Your task to perform on an android device: turn on sleep mode Image 0: 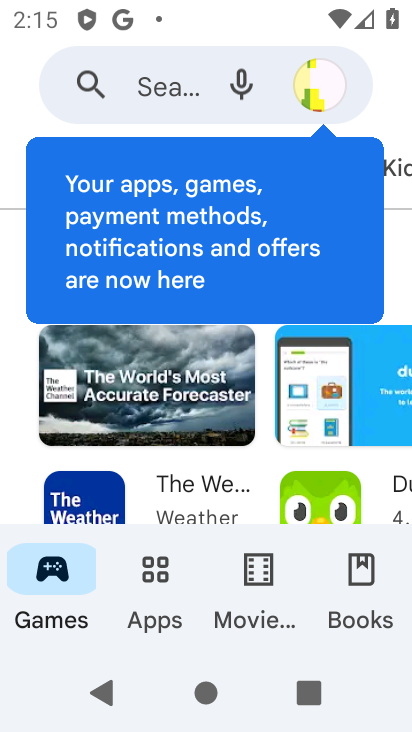
Step 0: press home button
Your task to perform on an android device: turn on sleep mode Image 1: 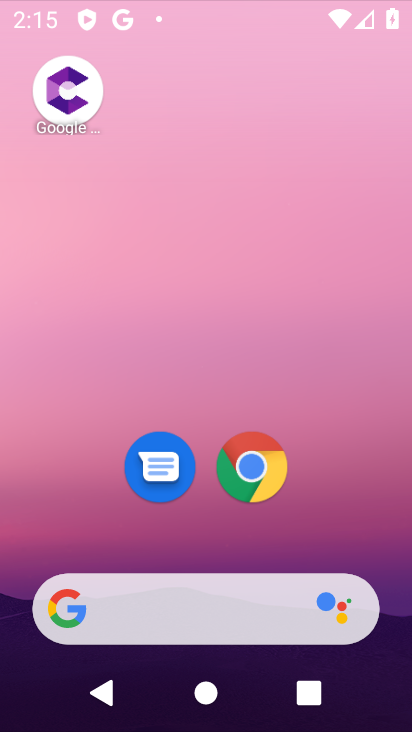
Step 1: drag from (201, 527) to (317, 45)
Your task to perform on an android device: turn on sleep mode Image 2: 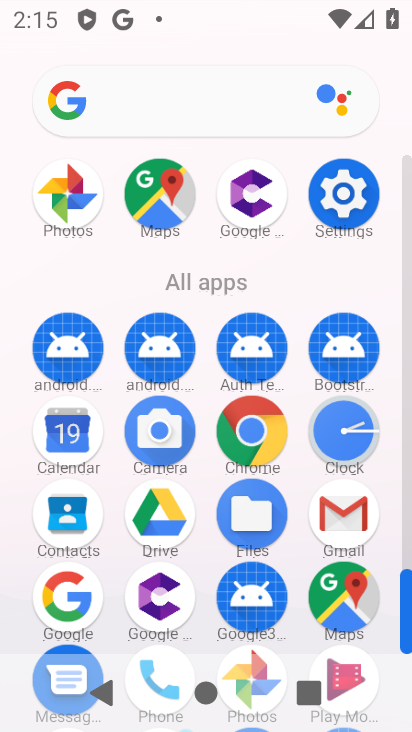
Step 2: click (355, 189)
Your task to perform on an android device: turn on sleep mode Image 3: 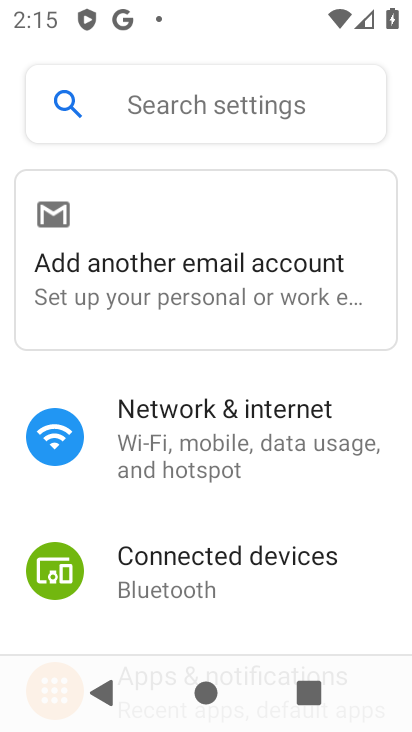
Step 3: drag from (235, 544) to (280, 19)
Your task to perform on an android device: turn on sleep mode Image 4: 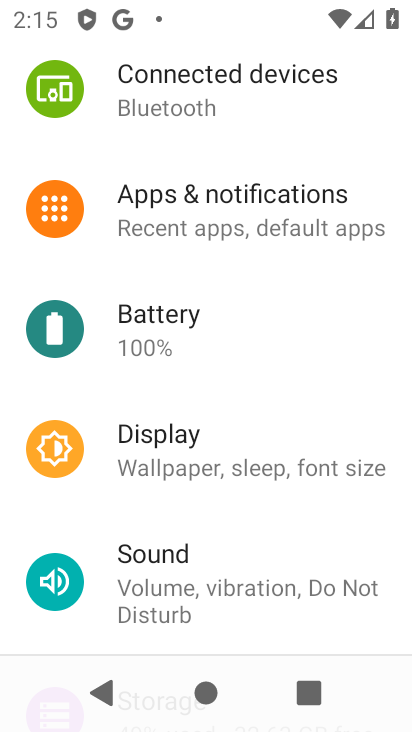
Step 4: click (214, 457)
Your task to perform on an android device: turn on sleep mode Image 5: 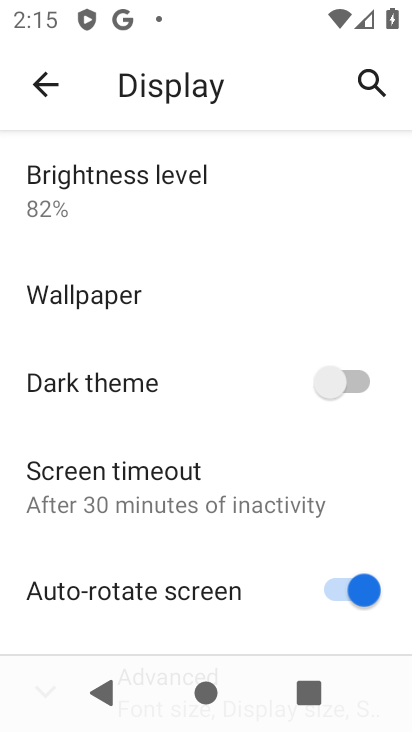
Step 5: click (124, 477)
Your task to perform on an android device: turn on sleep mode Image 6: 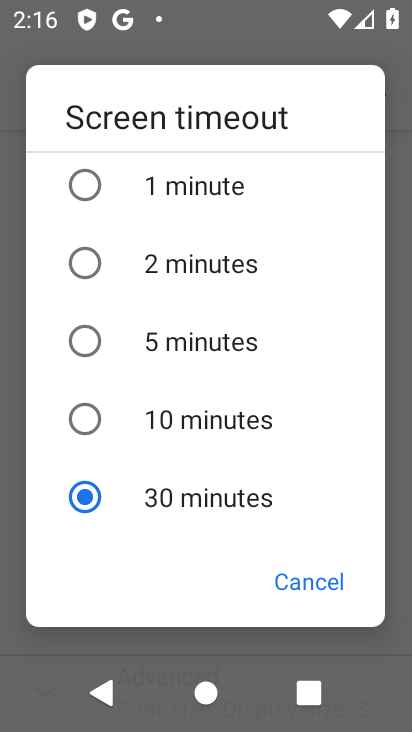
Step 6: task complete